Your task to perform on an android device: Show me the alarms in the clock app Image 0: 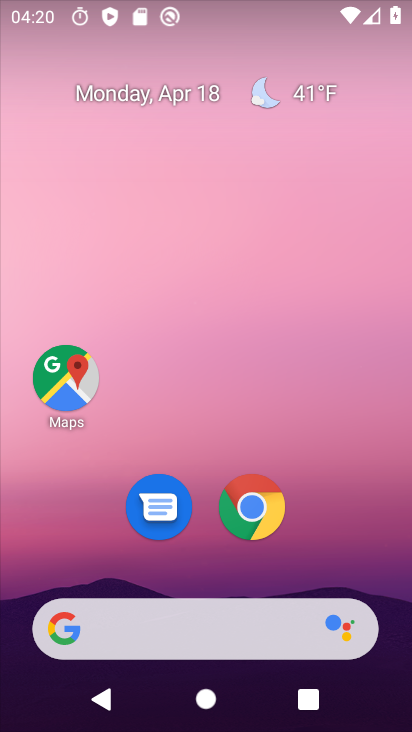
Step 0: drag from (349, 554) to (369, 40)
Your task to perform on an android device: Show me the alarms in the clock app Image 1: 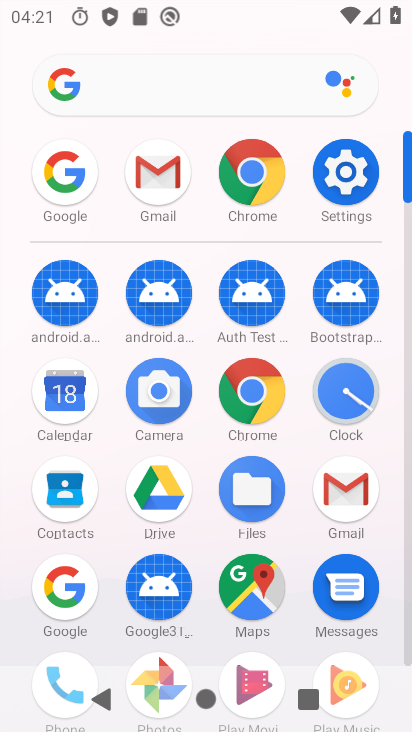
Step 1: click (348, 393)
Your task to perform on an android device: Show me the alarms in the clock app Image 2: 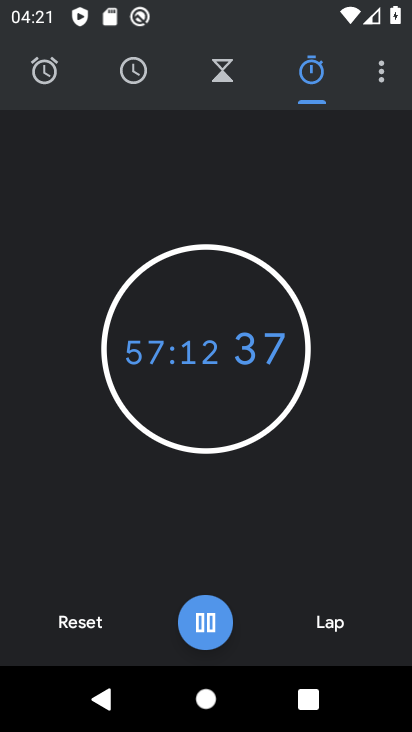
Step 2: click (49, 71)
Your task to perform on an android device: Show me the alarms in the clock app Image 3: 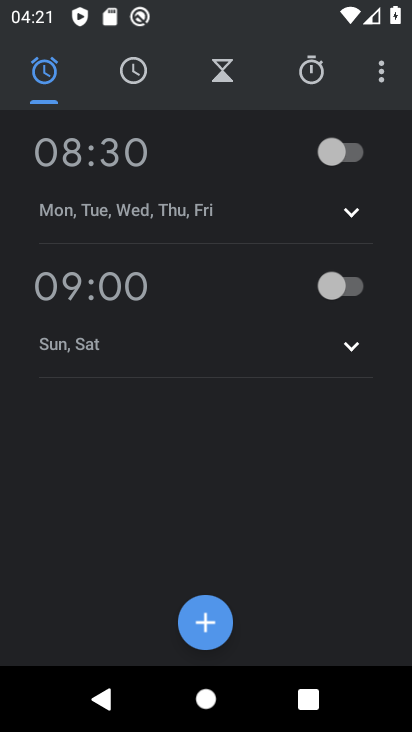
Step 3: task complete